Your task to perform on an android device: turn on airplane mode Image 0: 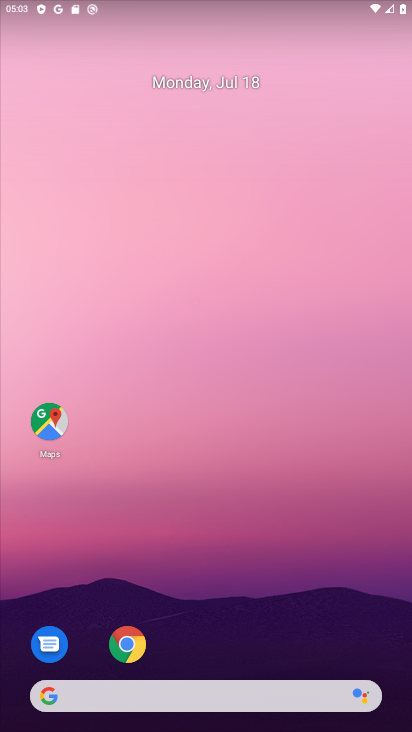
Step 0: press home button
Your task to perform on an android device: turn on airplane mode Image 1: 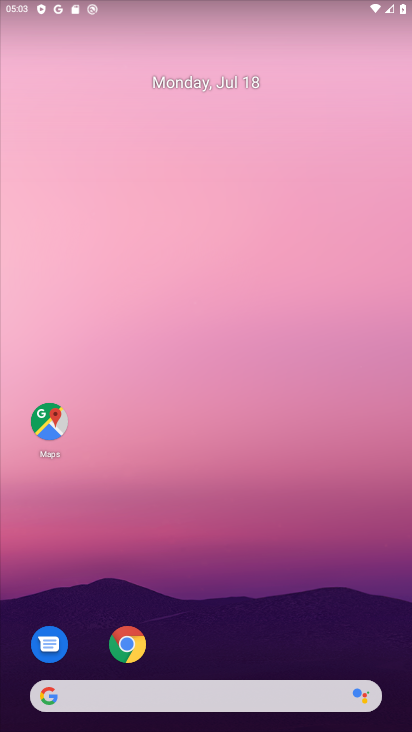
Step 1: drag from (204, 2) to (162, 475)
Your task to perform on an android device: turn on airplane mode Image 2: 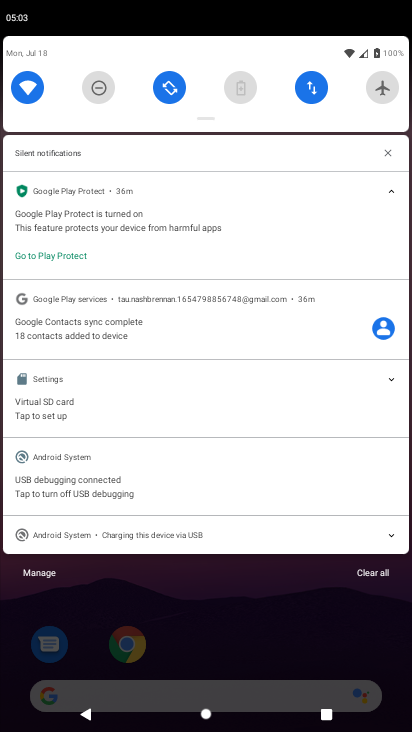
Step 2: click (380, 95)
Your task to perform on an android device: turn on airplane mode Image 3: 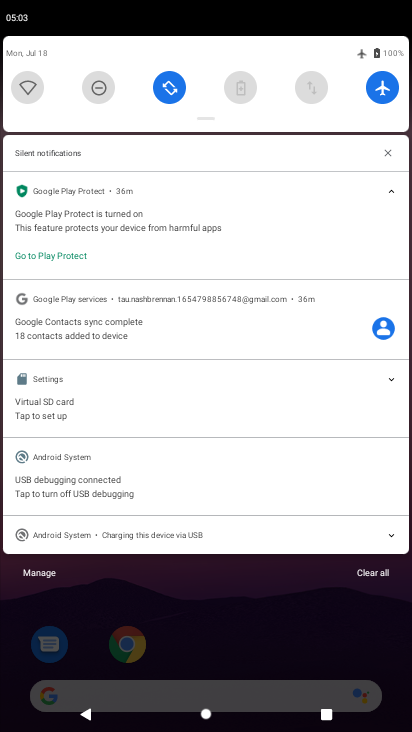
Step 3: task complete